Your task to perform on an android device: allow cookies in the chrome app Image 0: 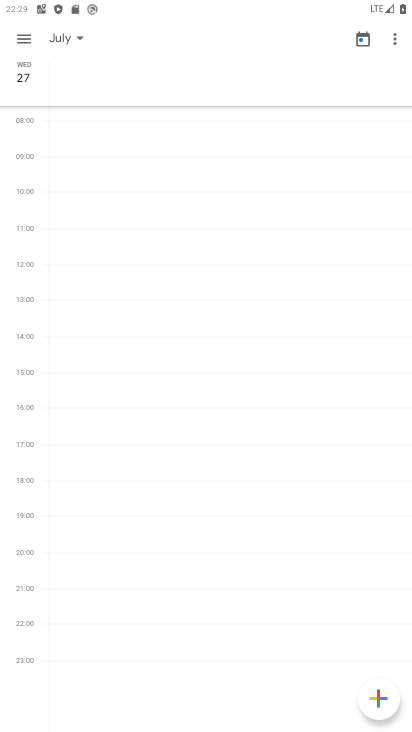
Step 0: press home button
Your task to perform on an android device: allow cookies in the chrome app Image 1: 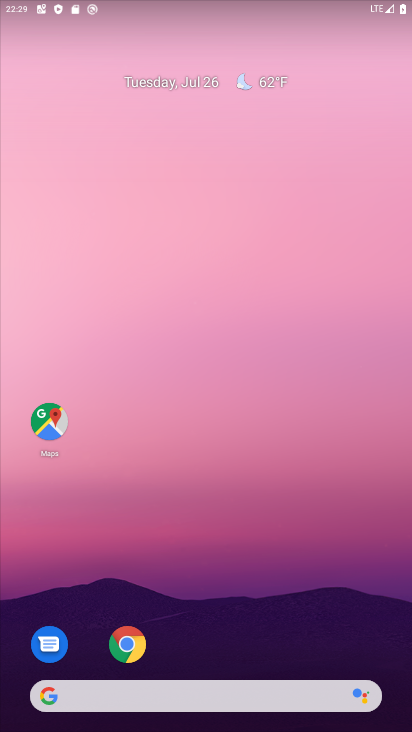
Step 1: click (134, 642)
Your task to perform on an android device: allow cookies in the chrome app Image 2: 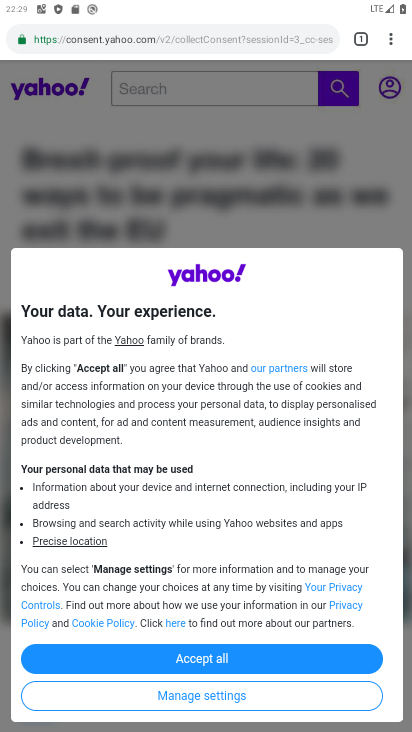
Step 2: click (393, 40)
Your task to perform on an android device: allow cookies in the chrome app Image 3: 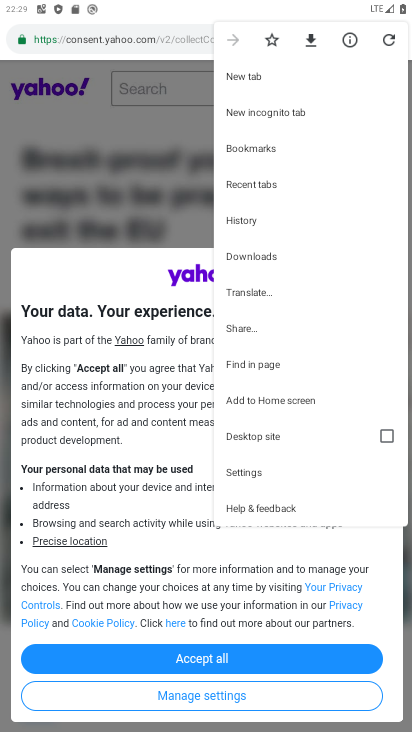
Step 3: click (255, 474)
Your task to perform on an android device: allow cookies in the chrome app Image 4: 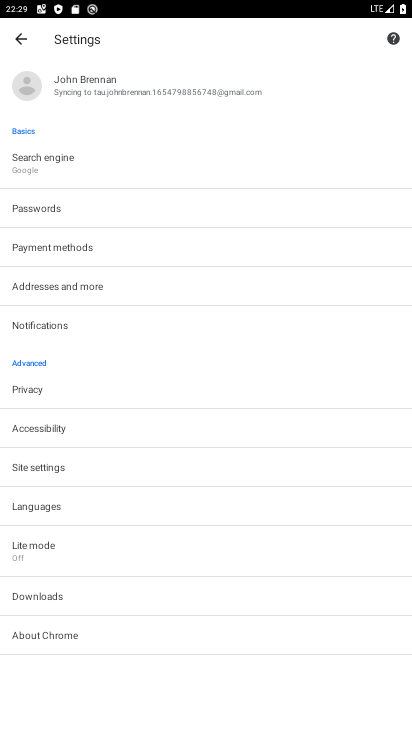
Step 4: click (42, 470)
Your task to perform on an android device: allow cookies in the chrome app Image 5: 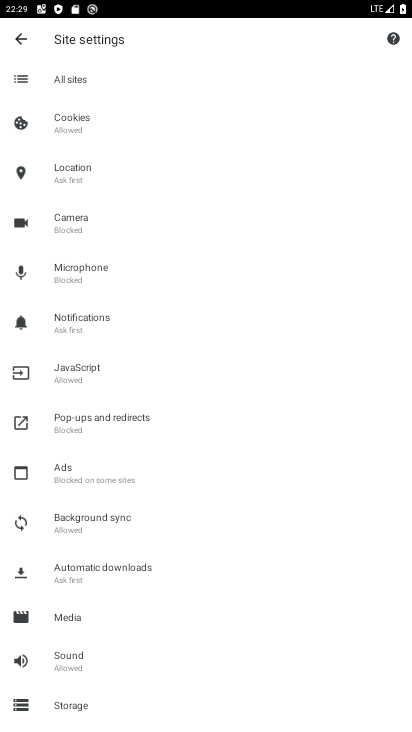
Step 5: click (69, 119)
Your task to perform on an android device: allow cookies in the chrome app Image 6: 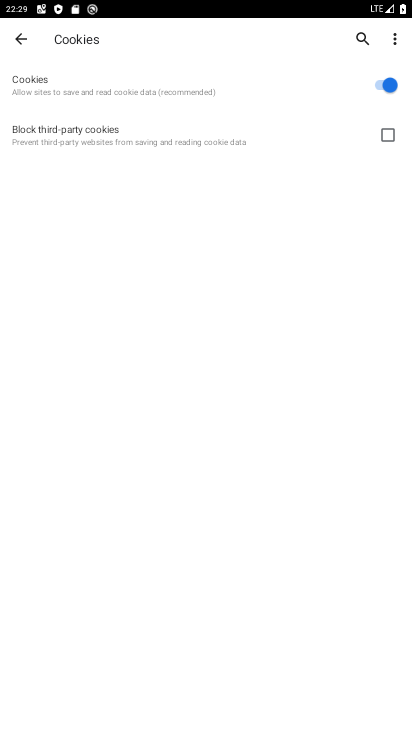
Step 6: task complete